Your task to perform on an android device: snooze an email in the gmail app Image 0: 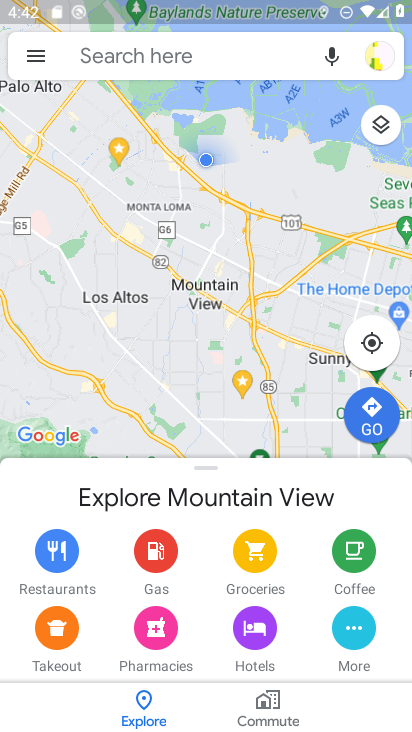
Step 0: press home button
Your task to perform on an android device: snooze an email in the gmail app Image 1: 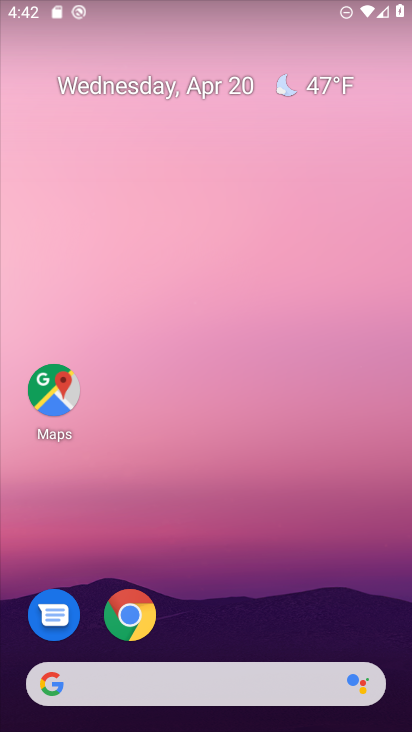
Step 1: drag from (214, 368) to (208, 80)
Your task to perform on an android device: snooze an email in the gmail app Image 2: 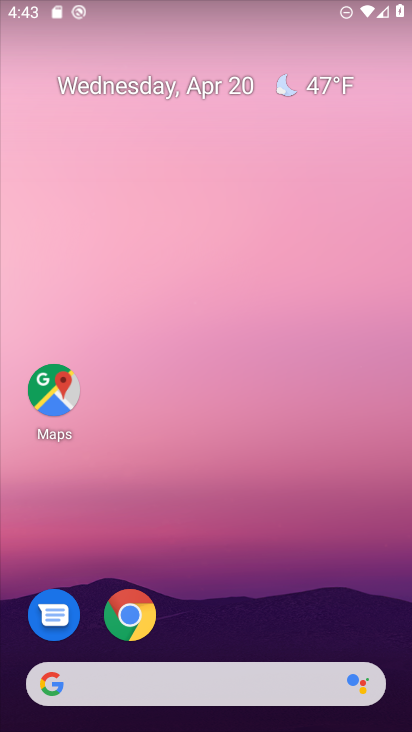
Step 2: drag from (277, 590) to (279, 12)
Your task to perform on an android device: snooze an email in the gmail app Image 3: 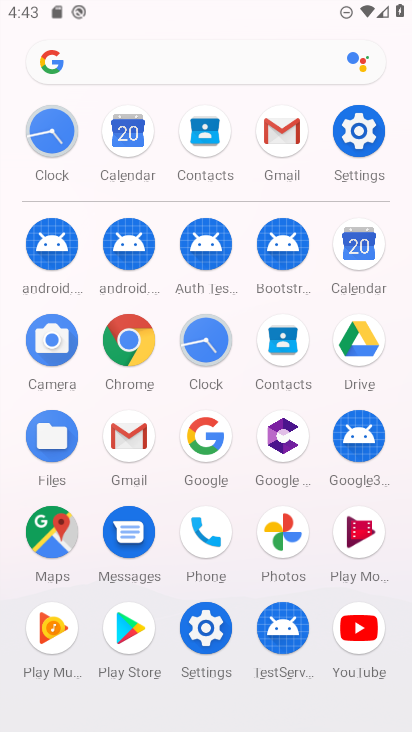
Step 3: click (280, 128)
Your task to perform on an android device: snooze an email in the gmail app Image 4: 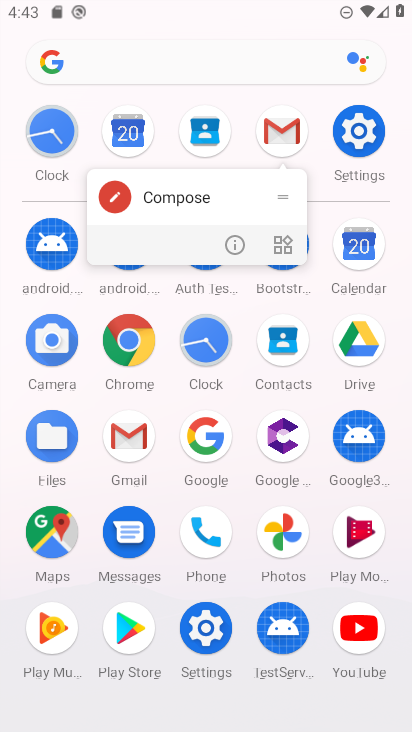
Step 4: click (287, 139)
Your task to perform on an android device: snooze an email in the gmail app Image 5: 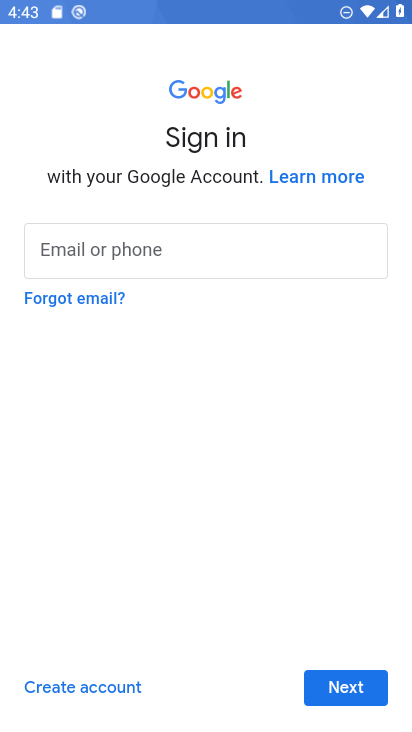
Step 5: click (220, 251)
Your task to perform on an android device: snooze an email in the gmail app Image 6: 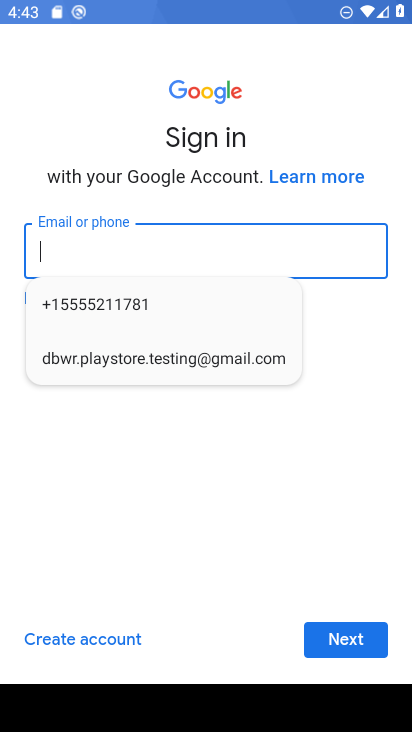
Step 6: press home button
Your task to perform on an android device: snooze an email in the gmail app Image 7: 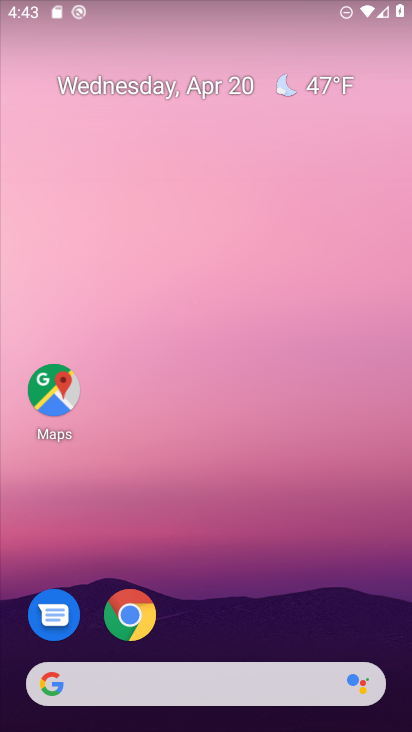
Step 7: drag from (230, 559) to (221, 163)
Your task to perform on an android device: snooze an email in the gmail app Image 8: 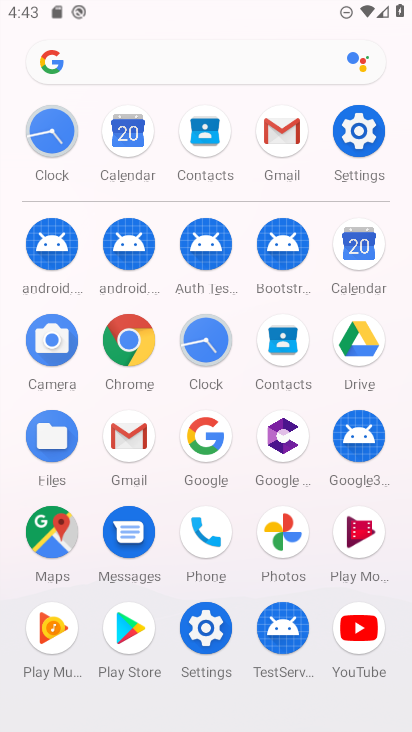
Step 8: click (282, 143)
Your task to perform on an android device: snooze an email in the gmail app Image 9: 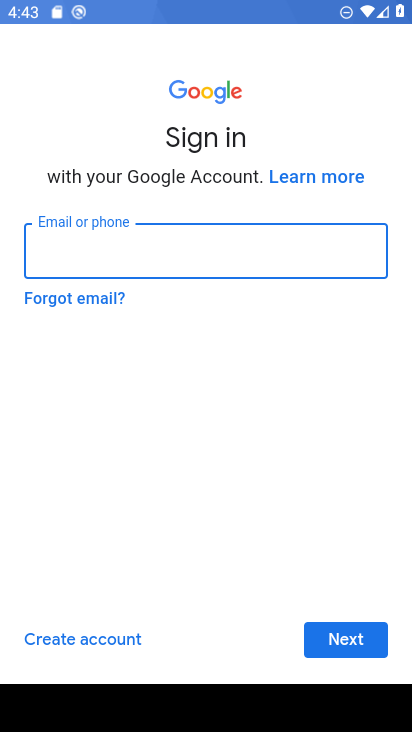
Step 9: click (175, 251)
Your task to perform on an android device: snooze an email in the gmail app Image 10: 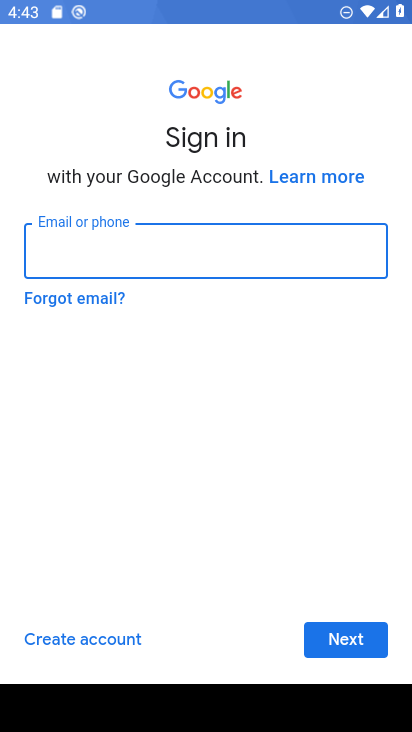
Step 10: click (206, 252)
Your task to perform on an android device: snooze an email in the gmail app Image 11: 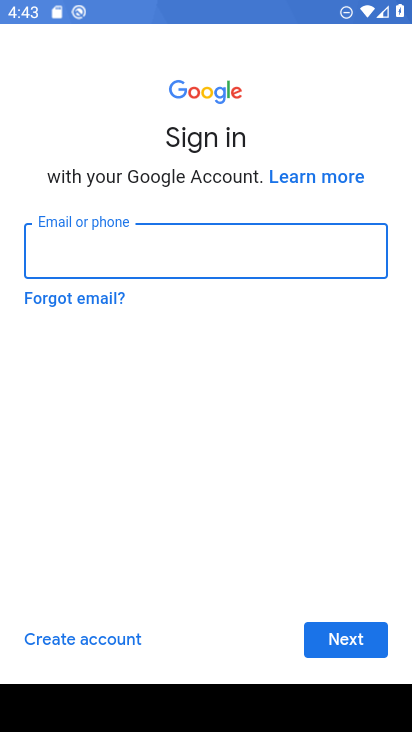
Step 11: click (161, 262)
Your task to perform on an android device: snooze an email in the gmail app Image 12: 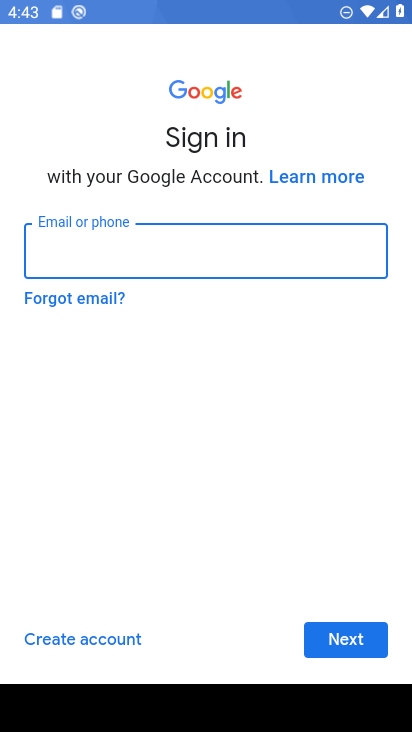
Step 12: click (230, 578)
Your task to perform on an android device: snooze an email in the gmail app Image 13: 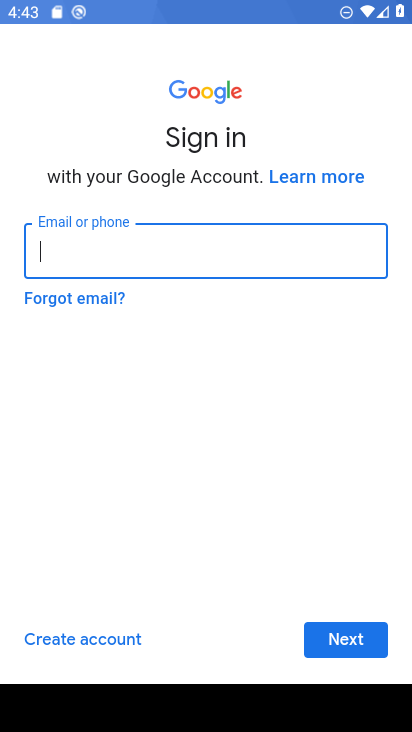
Step 13: drag from (256, 451) to (321, 522)
Your task to perform on an android device: snooze an email in the gmail app Image 14: 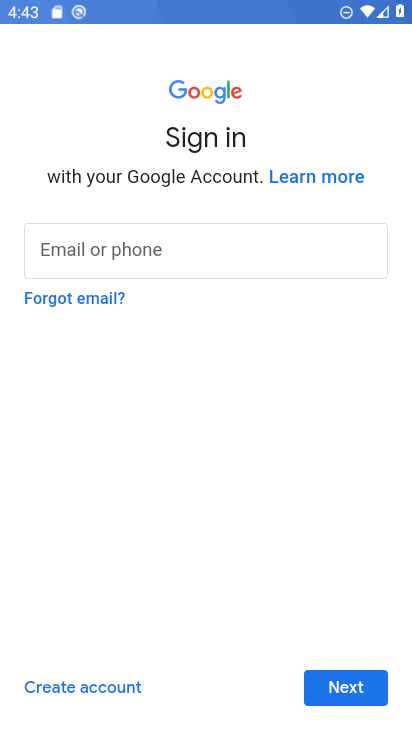
Step 14: click (349, 681)
Your task to perform on an android device: snooze an email in the gmail app Image 15: 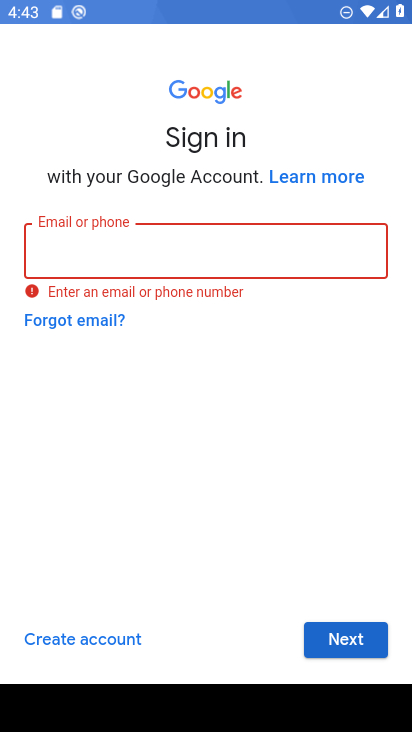
Step 15: click (133, 252)
Your task to perform on an android device: snooze an email in the gmail app Image 16: 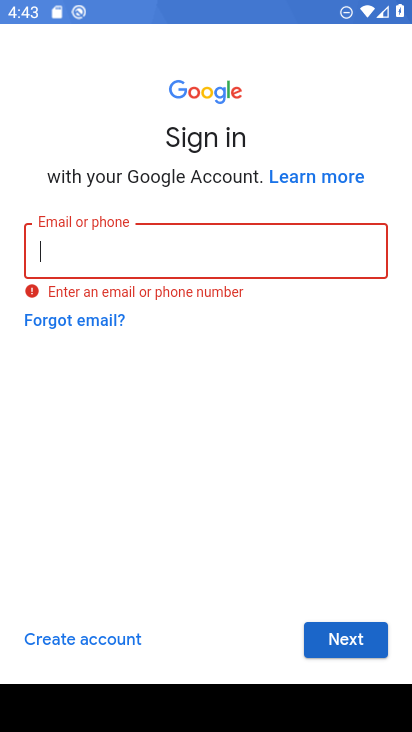
Step 16: click (136, 248)
Your task to perform on an android device: snooze an email in the gmail app Image 17: 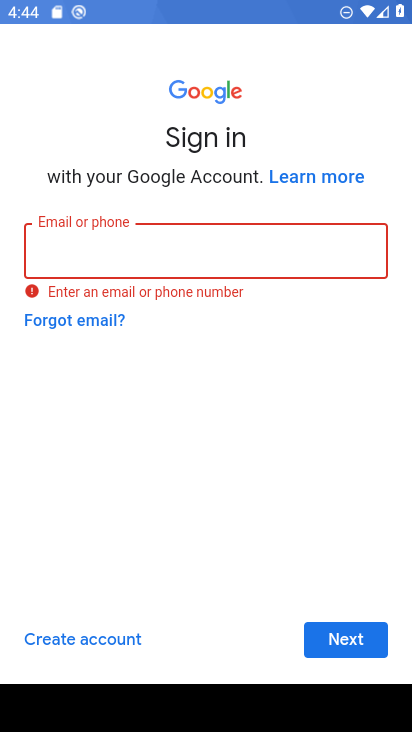
Step 17: press back button
Your task to perform on an android device: snooze an email in the gmail app Image 18: 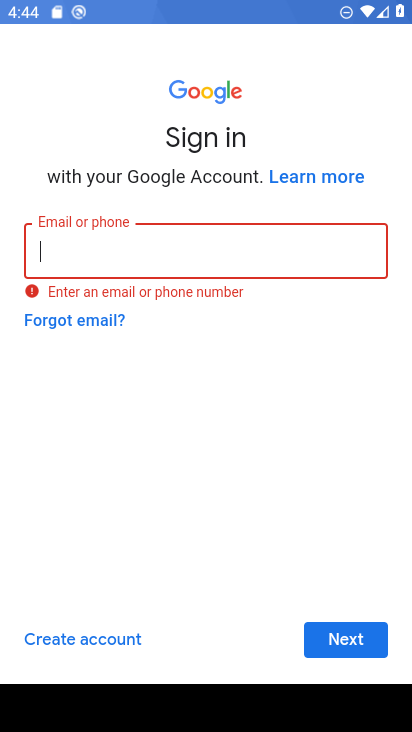
Step 18: press back button
Your task to perform on an android device: snooze an email in the gmail app Image 19: 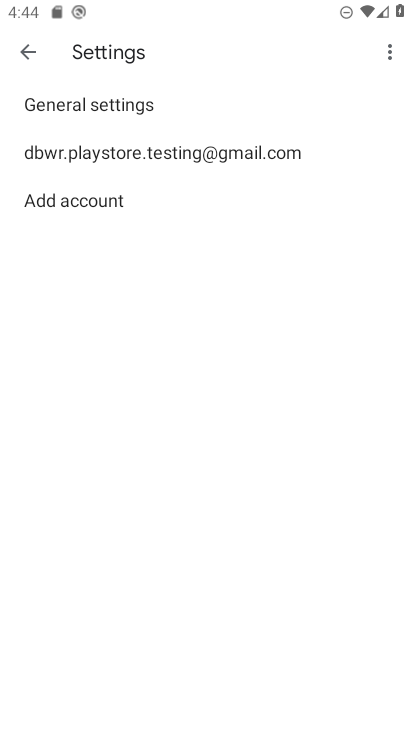
Step 19: click (178, 156)
Your task to perform on an android device: snooze an email in the gmail app Image 20: 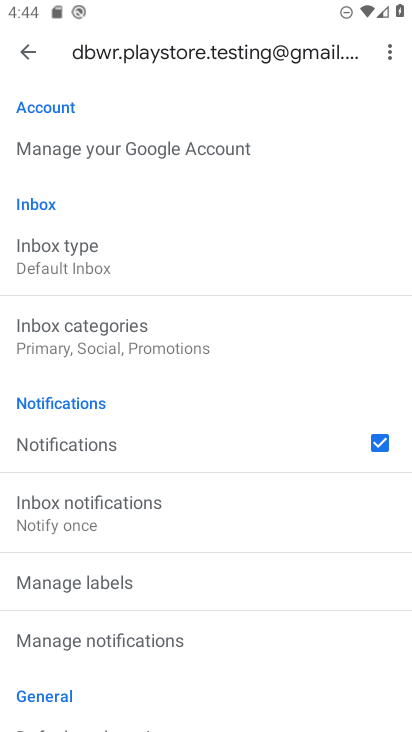
Step 20: click (29, 55)
Your task to perform on an android device: snooze an email in the gmail app Image 21: 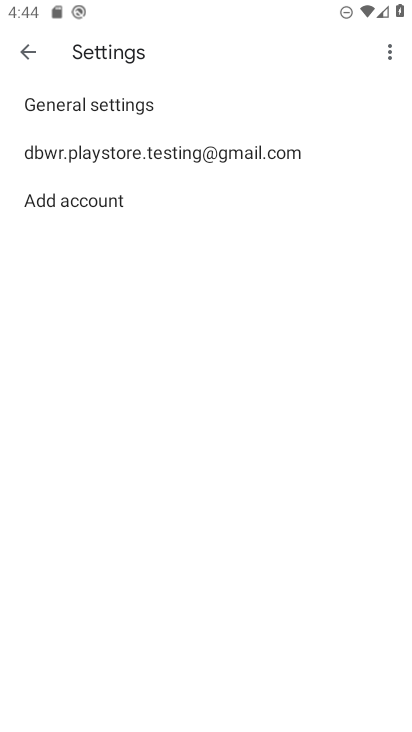
Step 21: click (29, 54)
Your task to perform on an android device: snooze an email in the gmail app Image 22: 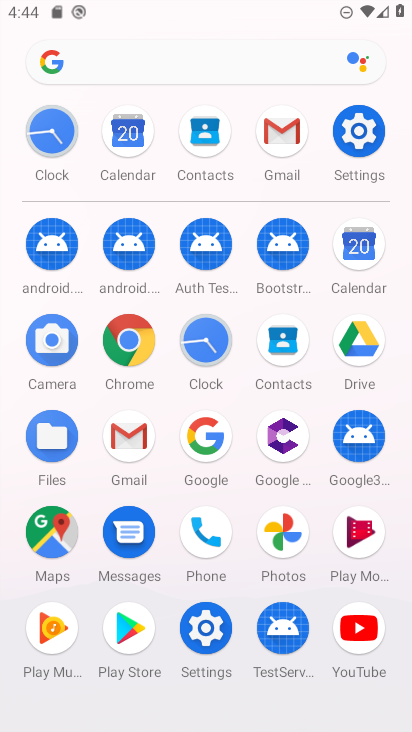
Step 22: click (281, 131)
Your task to perform on an android device: snooze an email in the gmail app Image 23: 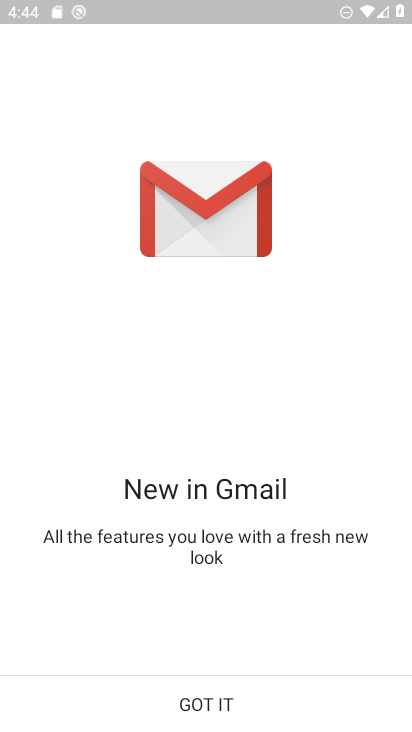
Step 23: click (197, 699)
Your task to perform on an android device: snooze an email in the gmail app Image 24: 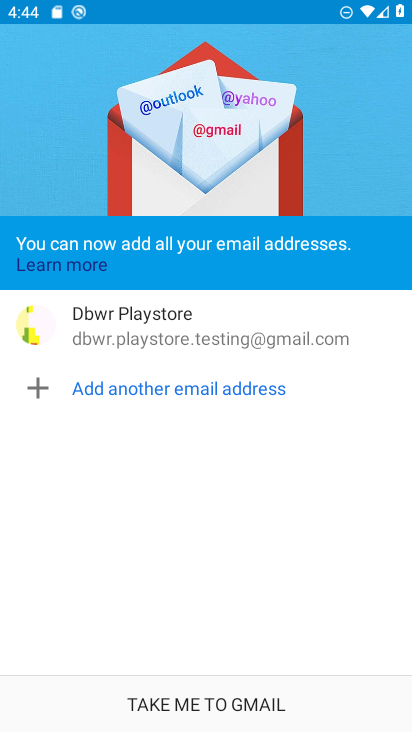
Step 24: click (174, 331)
Your task to perform on an android device: snooze an email in the gmail app Image 25: 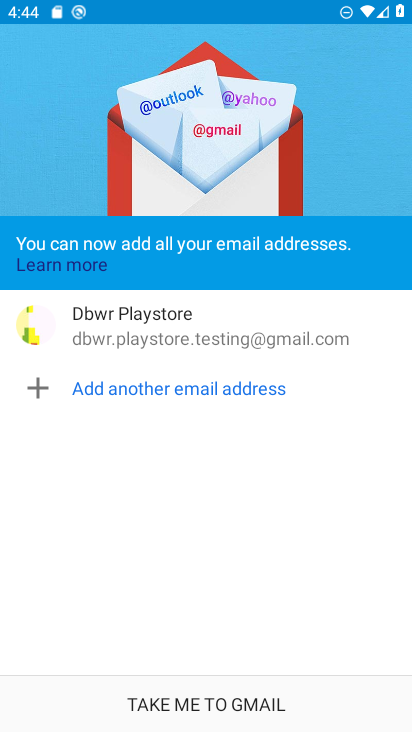
Step 25: click (234, 699)
Your task to perform on an android device: snooze an email in the gmail app Image 26: 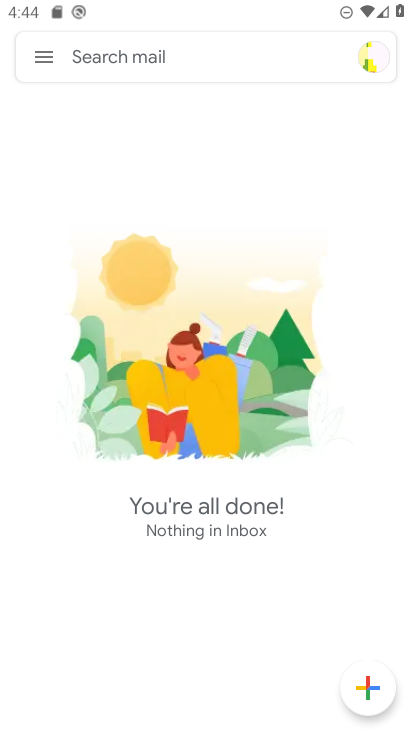
Step 26: click (42, 48)
Your task to perform on an android device: snooze an email in the gmail app Image 27: 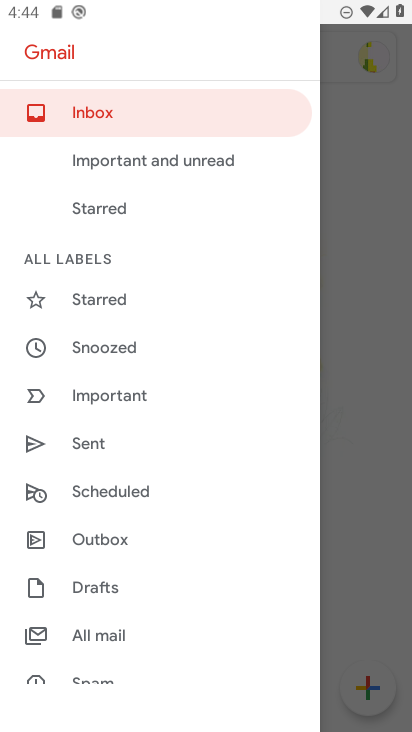
Step 27: click (119, 632)
Your task to perform on an android device: snooze an email in the gmail app Image 28: 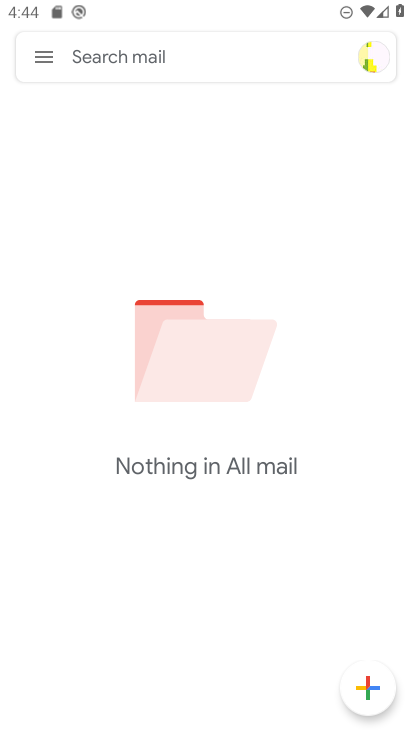
Step 28: task complete